Your task to perform on an android device: change alarm snooze length Image 0: 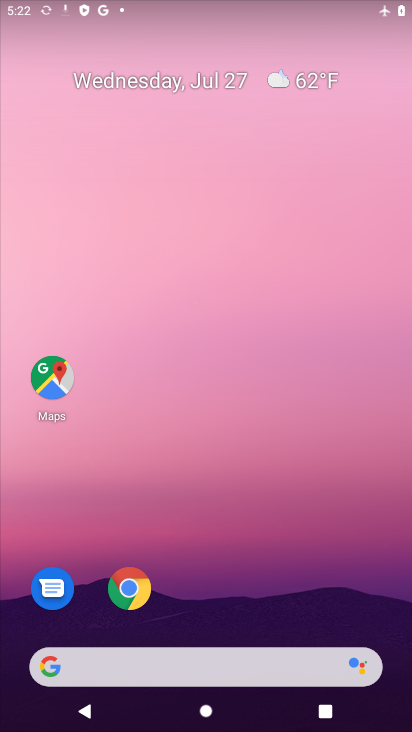
Step 0: drag from (172, 552) to (184, 76)
Your task to perform on an android device: change alarm snooze length Image 1: 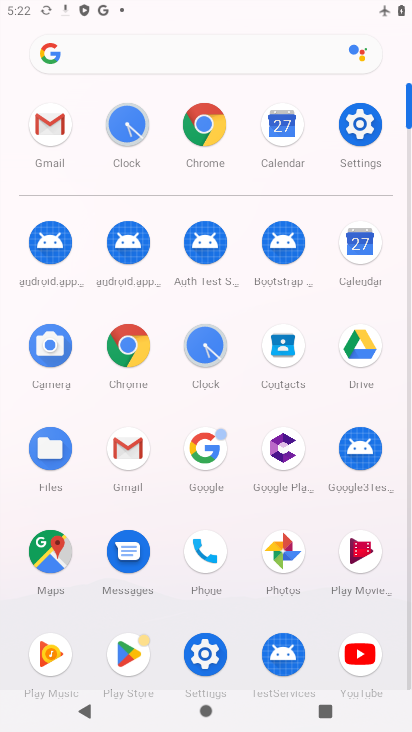
Step 1: click (191, 343)
Your task to perform on an android device: change alarm snooze length Image 2: 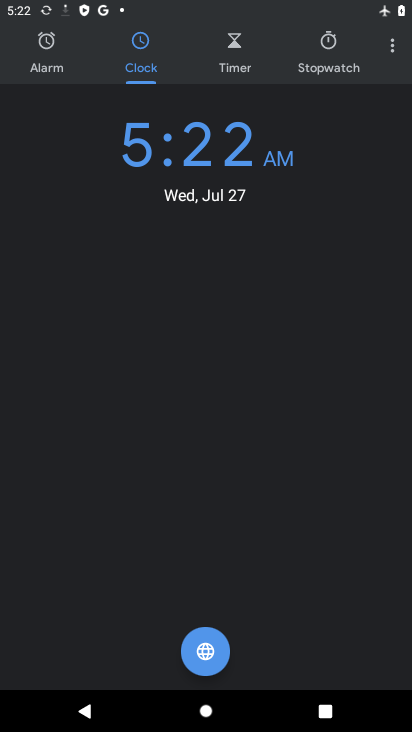
Step 2: click (391, 42)
Your task to perform on an android device: change alarm snooze length Image 3: 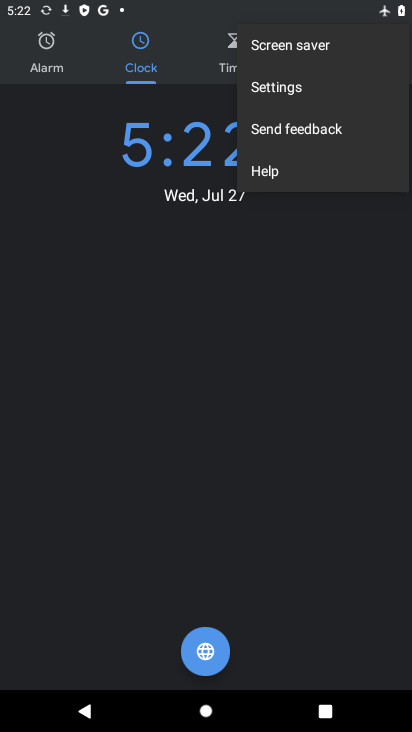
Step 3: click (290, 86)
Your task to perform on an android device: change alarm snooze length Image 4: 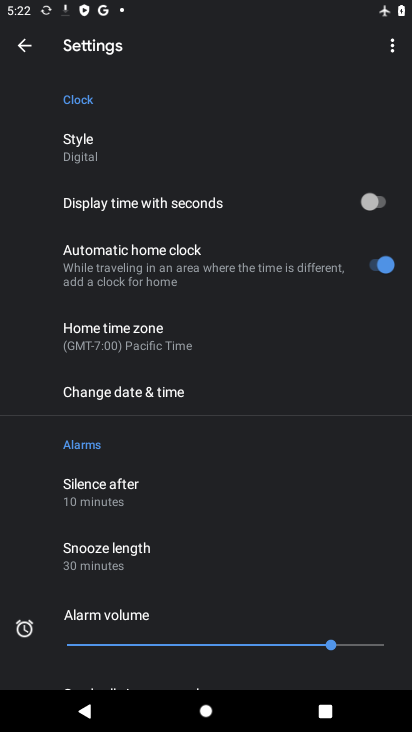
Step 4: click (89, 561)
Your task to perform on an android device: change alarm snooze length Image 5: 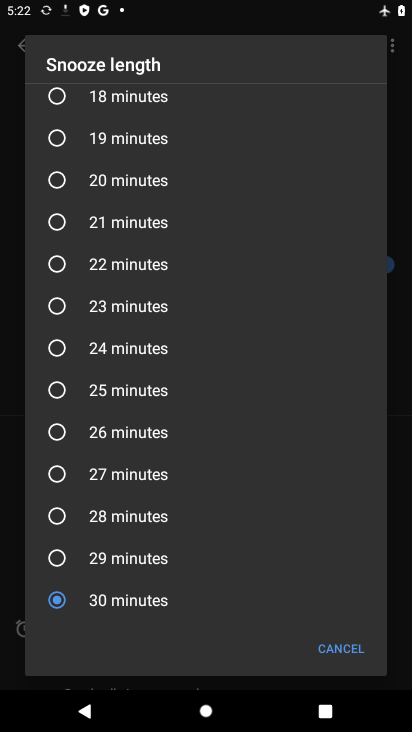
Step 5: click (63, 513)
Your task to perform on an android device: change alarm snooze length Image 6: 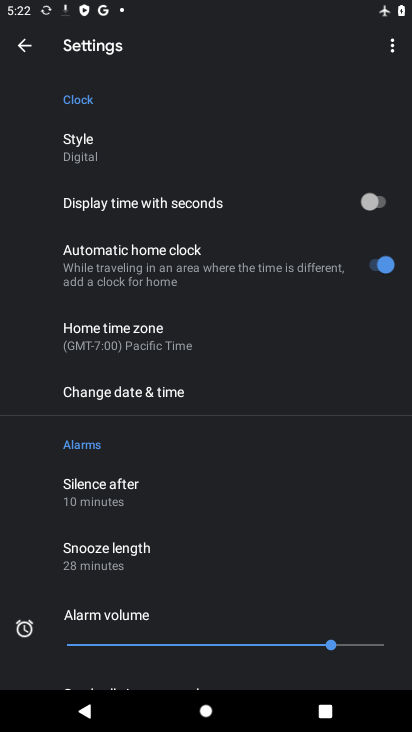
Step 6: task complete